Your task to perform on an android device: toggle priority inbox in the gmail app Image 0: 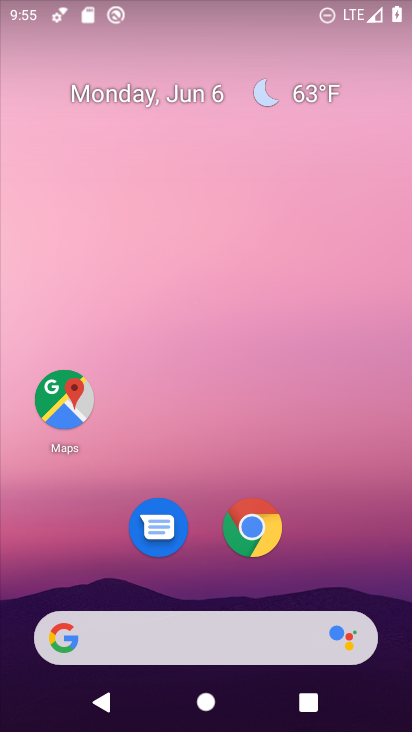
Step 0: drag from (364, 560) to (381, 169)
Your task to perform on an android device: toggle priority inbox in the gmail app Image 1: 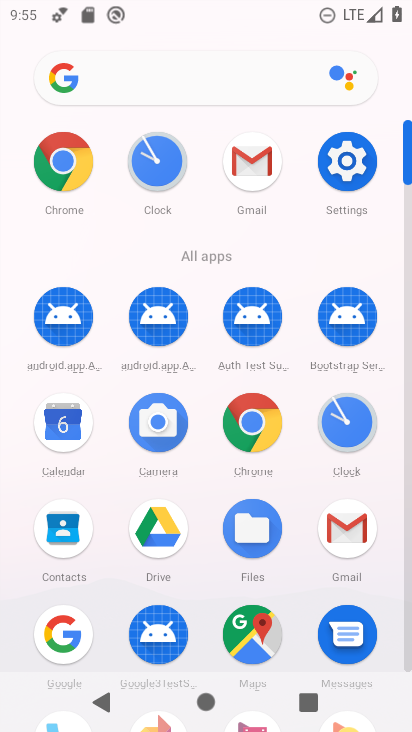
Step 1: click (354, 528)
Your task to perform on an android device: toggle priority inbox in the gmail app Image 2: 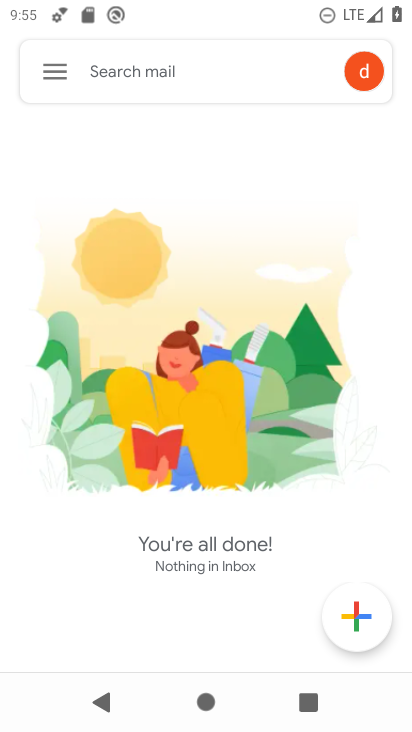
Step 2: click (56, 72)
Your task to perform on an android device: toggle priority inbox in the gmail app Image 3: 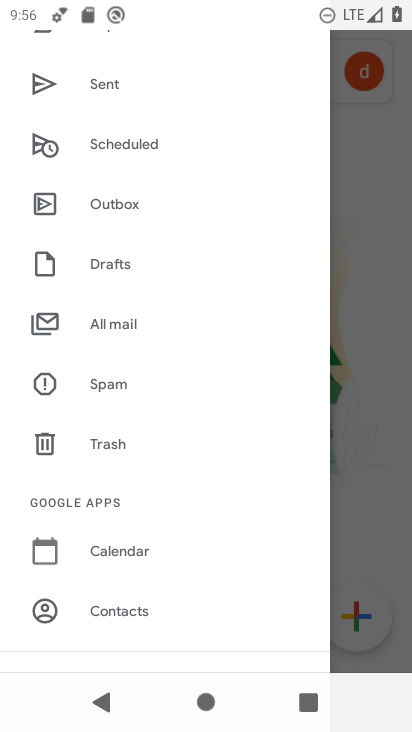
Step 3: drag from (255, 261) to (279, 388)
Your task to perform on an android device: toggle priority inbox in the gmail app Image 4: 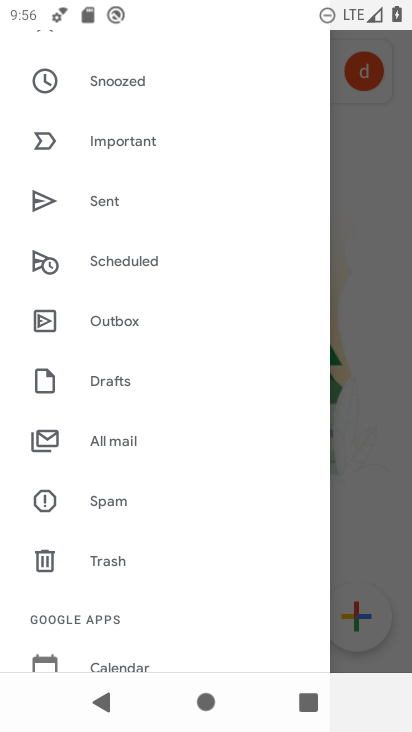
Step 4: drag from (259, 196) to (228, 360)
Your task to perform on an android device: toggle priority inbox in the gmail app Image 5: 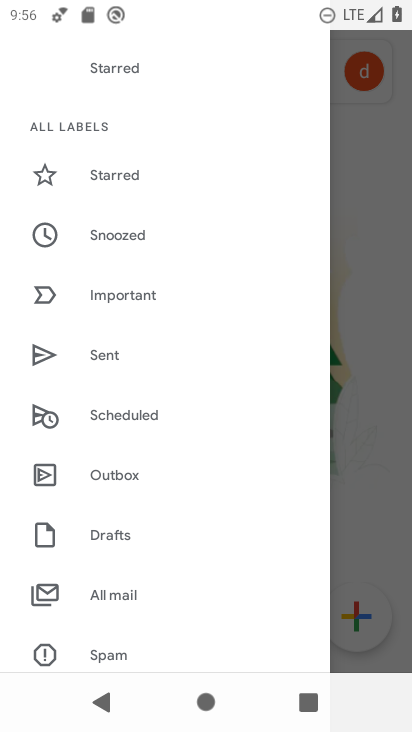
Step 5: drag from (241, 214) to (265, 375)
Your task to perform on an android device: toggle priority inbox in the gmail app Image 6: 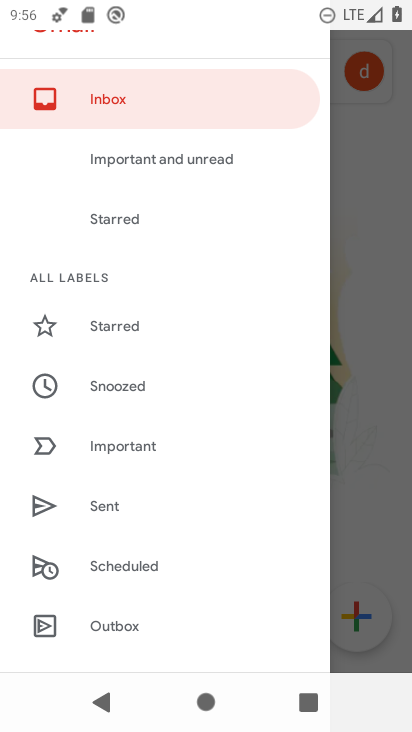
Step 6: drag from (260, 277) to (246, 407)
Your task to perform on an android device: toggle priority inbox in the gmail app Image 7: 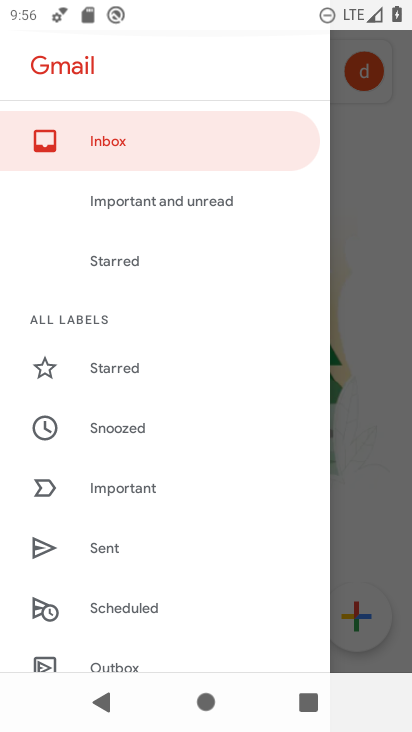
Step 7: drag from (256, 425) to (283, 286)
Your task to perform on an android device: toggle priority inbox in the gmail app Image 8: 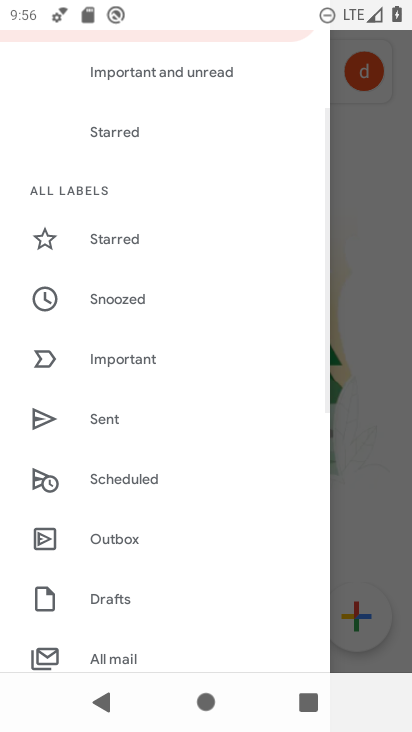
Step 8: drag from (249, 446) to (229, 262)
Your task to perform on an android device: toggle priority inbox in the gmail app Image 9: 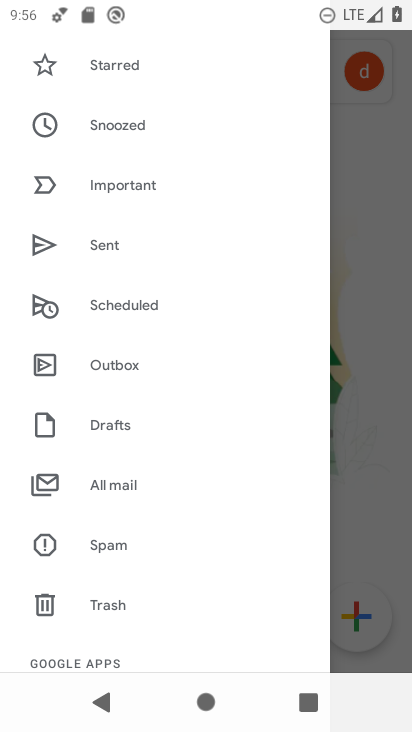
Step 9: drag from (241, 481) to (241, 361)
Your task to perform on an android device: toggle priority inbox in the gmail app Image 10: 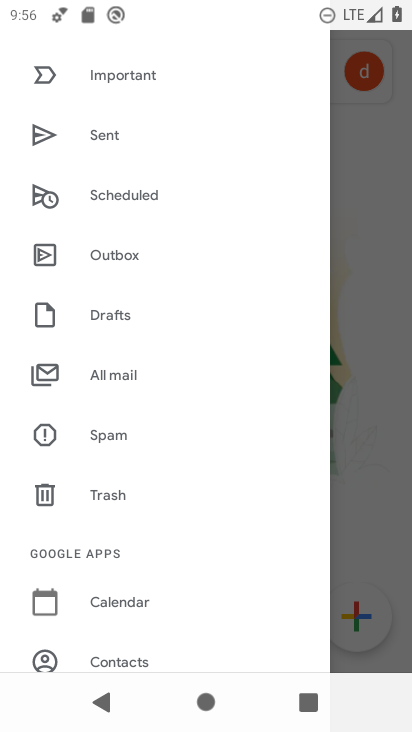
Step 10: drag from (252, 569) to (282, 416)
Your task to perform on an android device: toggle priority inbox in the gmail app Image 11: 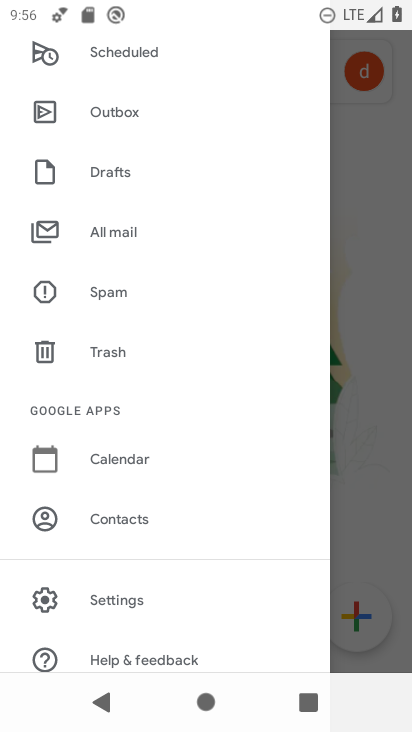
Step 11: click (170, 609)
Your task to perform on an android device: toggle priority inbox in the gmail app Image 12: 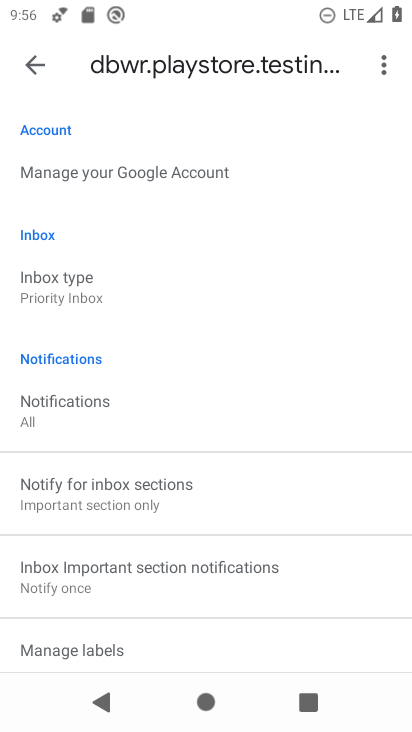
Step 12: task complete